Your task to perform on an android device: Clear the cart on newegg. Image 0: 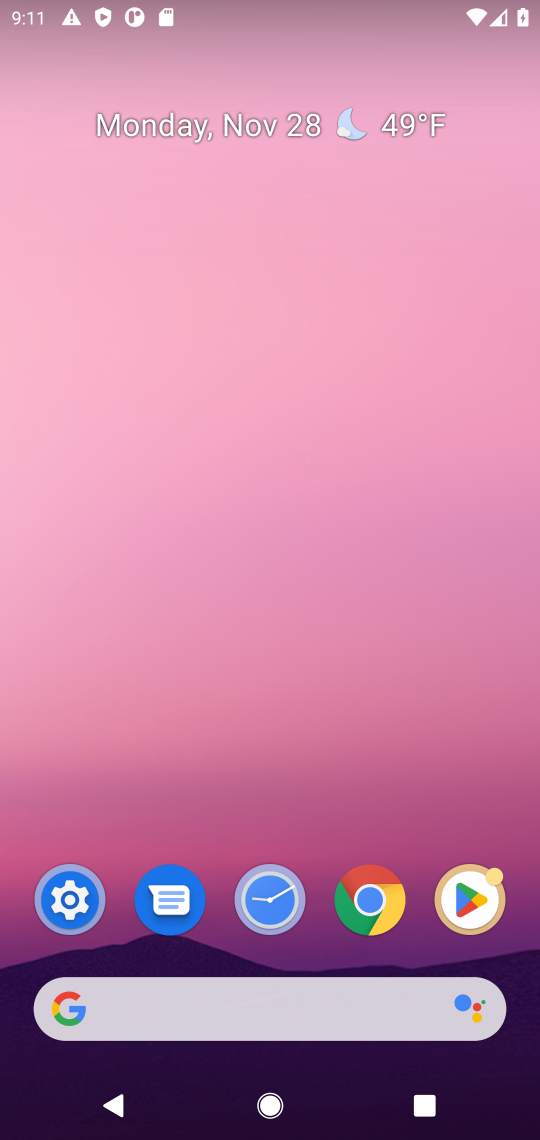
Step 0: task complete